Your task to perform on an android device: Open eBay Image 0: 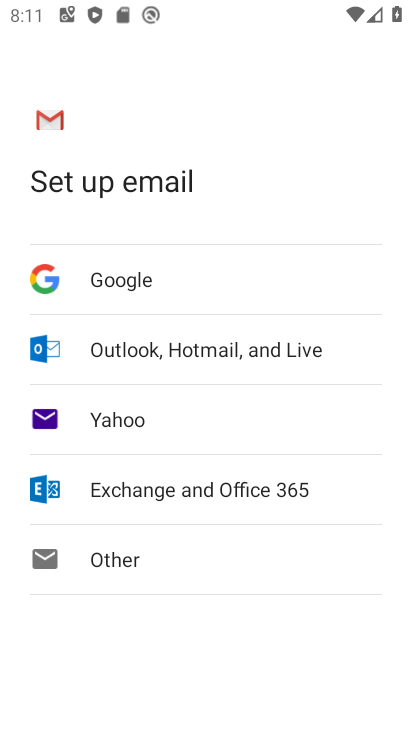
Step 0: press home button
Your task to perform on an android device: Open eBay Image 1: 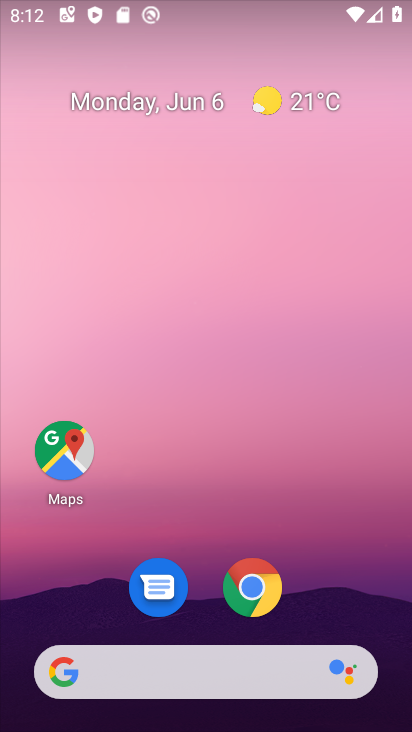
Step 1: click (210, 667)
Your task to perform on an android device: Open eBay Image 2: 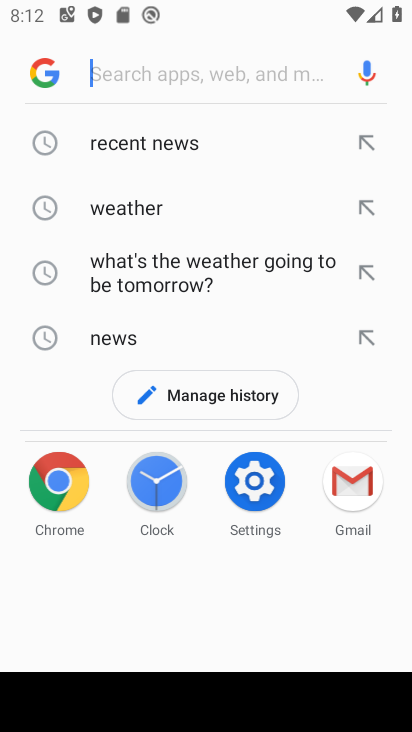
Step 2: type "ebay"
Your task to perform on an android device: Open eBay Image 3: 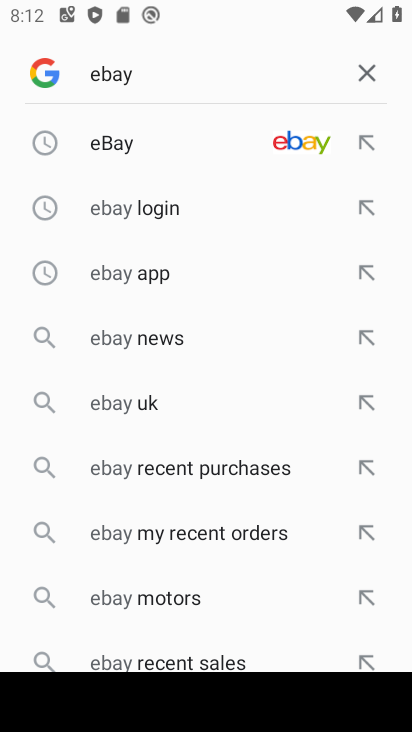
Step 3: click (297, 138)
Your task to perform on an android device: Open eBay Image 4: 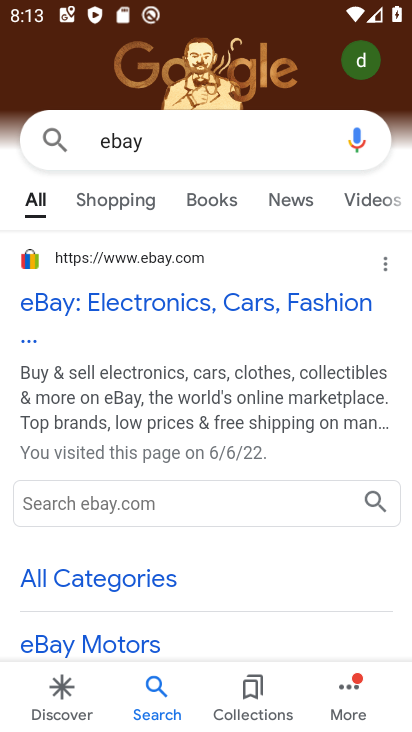
Step 4: click (129, 254)
Your task to perform on an android device: Open eBay Image 5: 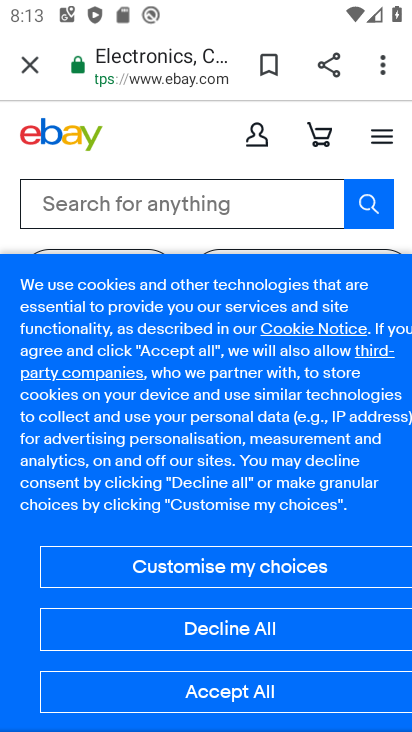
Step 5: task complete